Your task to perform on an android device: turn on showing notifications on the lock screen Image 0: 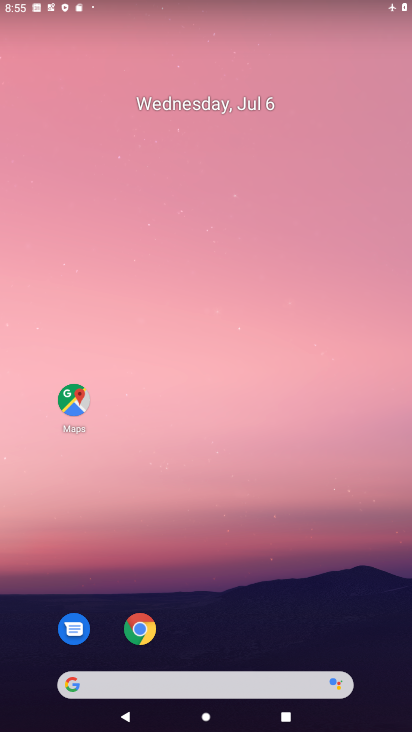
Step 0: drag from (281, 638) to (242, 160)
Your task to perform on an android device: turn on showing notifications on the lock screen Image 1: 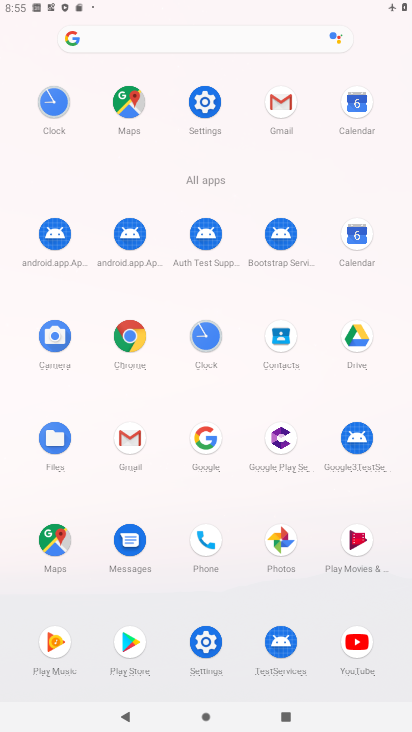
Step 1: click (205, 103)
Your task to perform on an android device: turn on showing notifications on the lock screen Image 2: 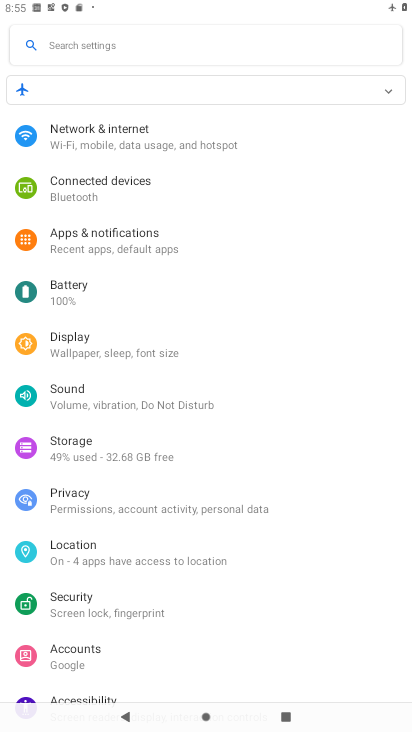
Step 2: click (108, 231)
Your task to perform on an android device: turn on showing notifications on the lock screen Image 3: 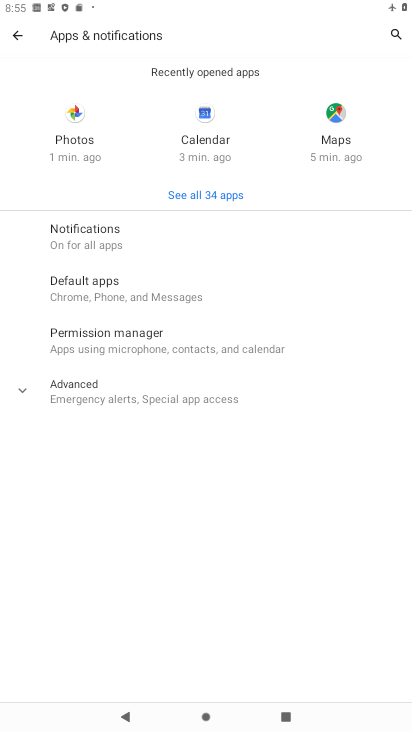
Step 3: click (106, 233)
Your task to perform on an android device: turn on showing notifications on the lock screen Image 4: 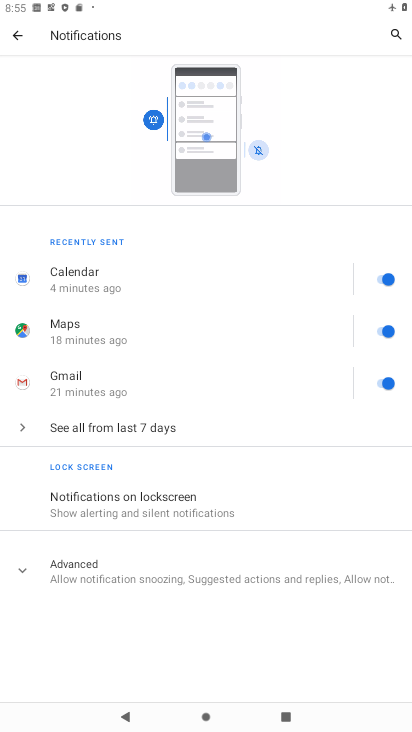
Step 4: click (110, 503)
Your task to perform on an android device: turn on showing notifications on the lock screen Image 5: 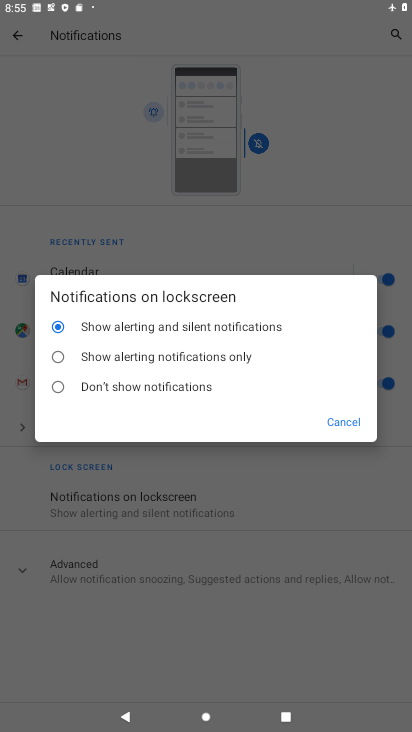
Step 5: click (182, 327)
Your task to perform on an android device: turn on showing notifications on the lock screen Image 6: 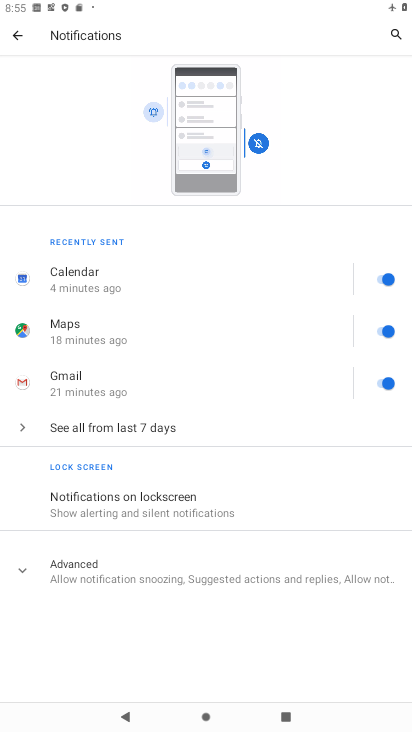
Step 6: task complete